Your task to perform on an android device: Turn on the flashlight Image 0: 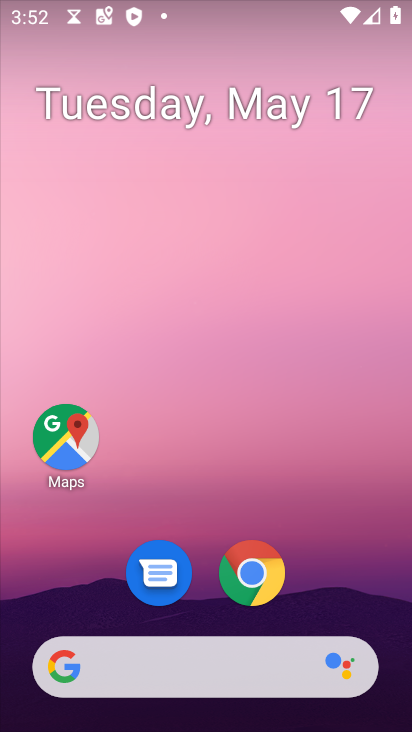
Step 0: drag from (313, 11) to (260, 451)
Your task to perform on an android device: Turn on the flashlight Image 1: 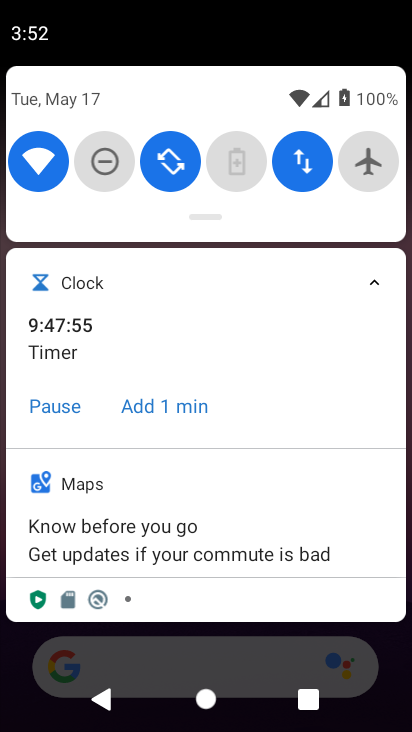
Step 1: drag from (209, 202) to (212, 500)
Your task to perform on an android device: Turn on the flashlight Image 2: 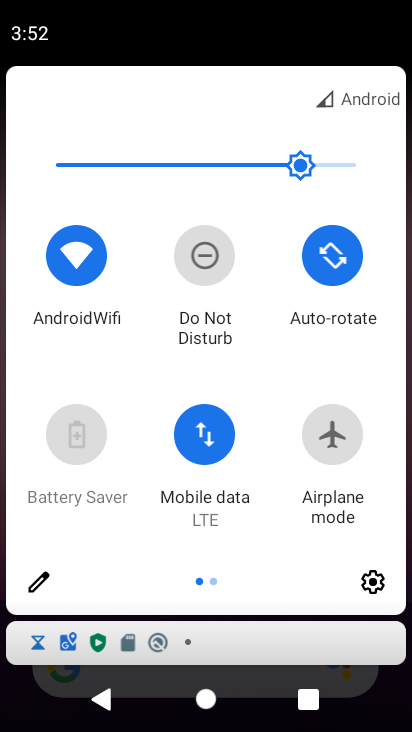
Step 2: click (46, 568)
Your task to perform on an android device: Turn on the flashlight Image 3: 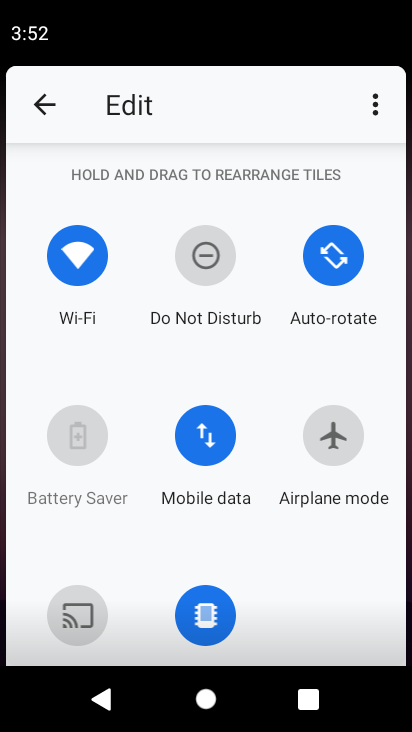
Step 3: task complete